Your task to perform on an android device: snooze an email in the gmail app Image 0: 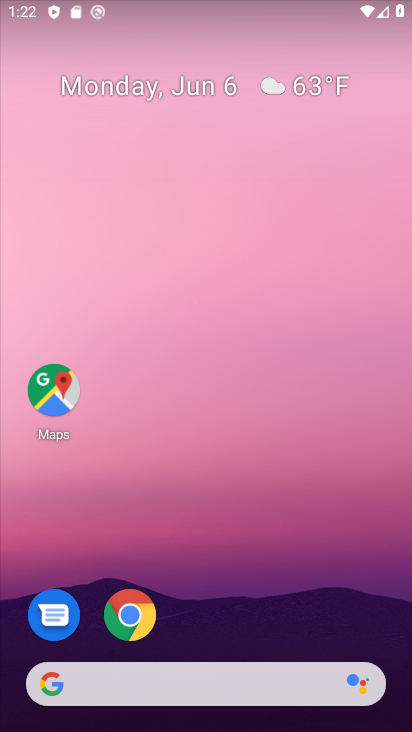
Step 0: drag from (227, 654) to (309, 222)
Your task to perform on an android device: snooze an email in the gmail app Image 1: 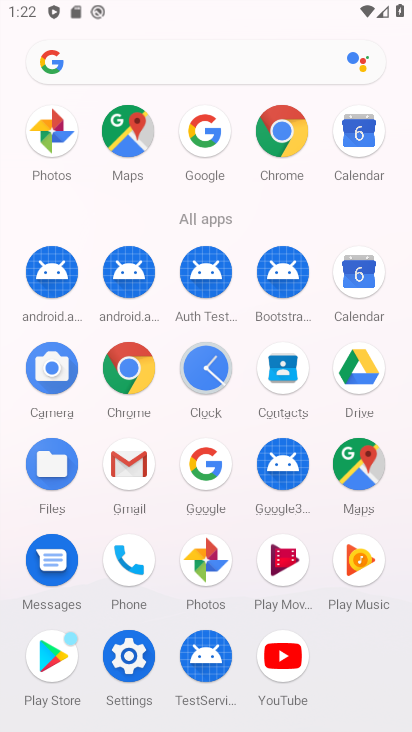
Step 1: click (130, 483)
Your task to perform on an android device: snooze an email in the gmail app Image 2: 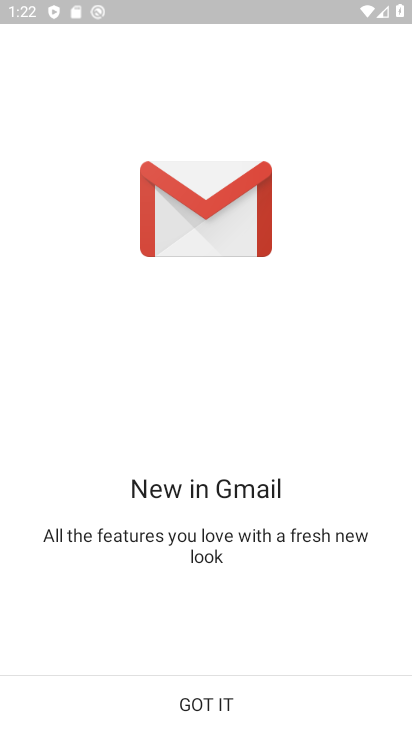
Step 2: click (188, 708)
Your task to perform on an android device: snooze an email in the gmail app Image 3: 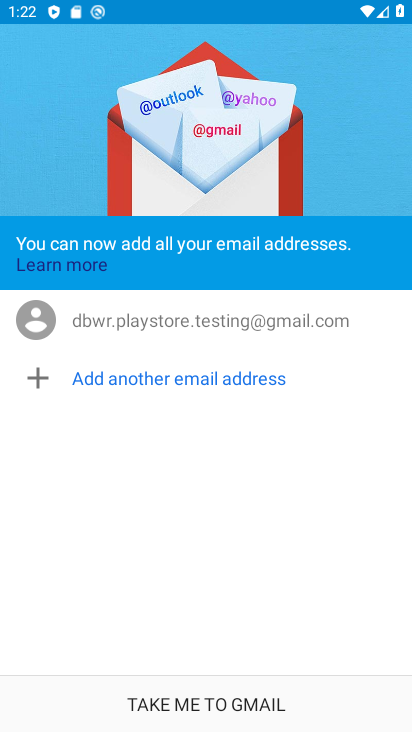
Step 3: click (231, 705)
Your task to perform on an android device: snooze an email in the gmail app Image 4: 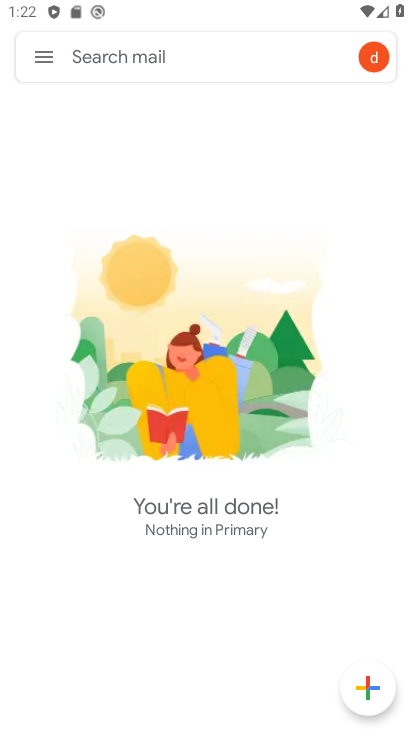
Step 4: click (52, 60)
Your task to perform on an android device: snooze an email in the gmail app Image 5: 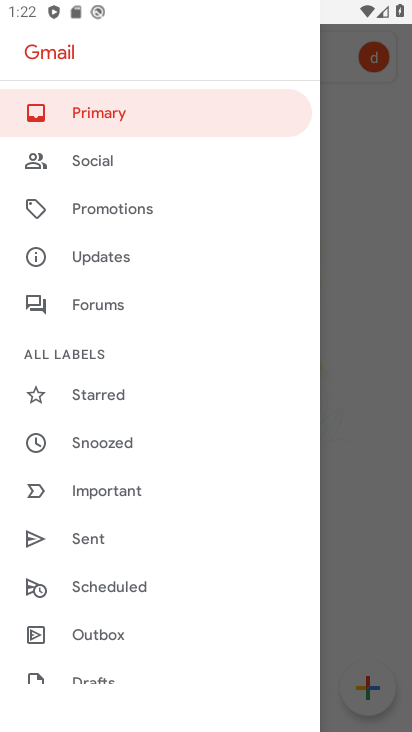
Step 5: drag from (116, 637) to (201, 318)
Your task to perform on an android device: snooze an email in the gmail app Image 6: 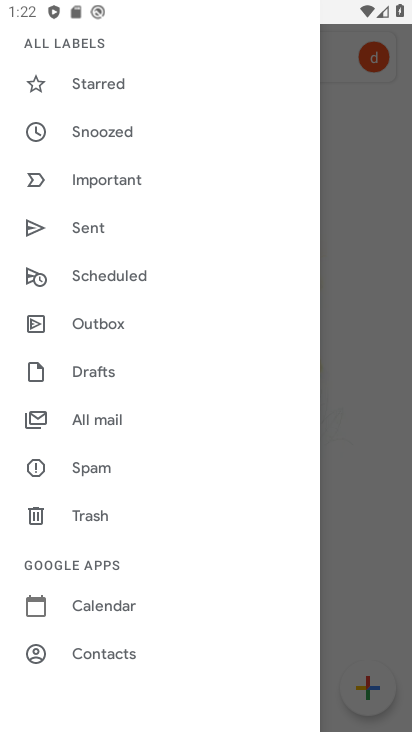
Step 6: click (140, 418)
Your task to perform on an android device: snooze an email in the gmail app Image 7: 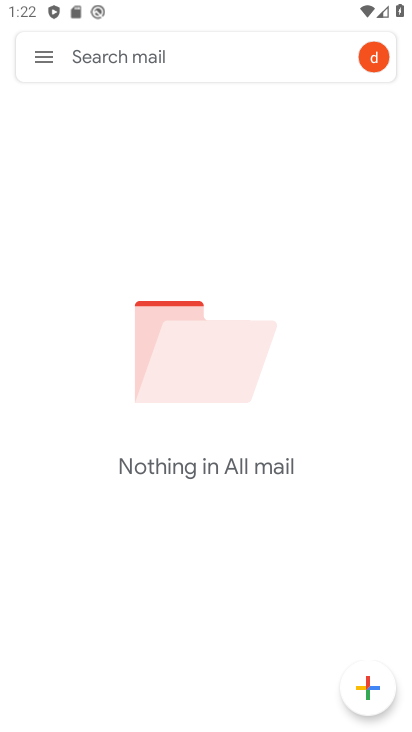
Step 7: task complete